Your task to perform on an android device: Set the phone to "Do not disturb". Image 0: 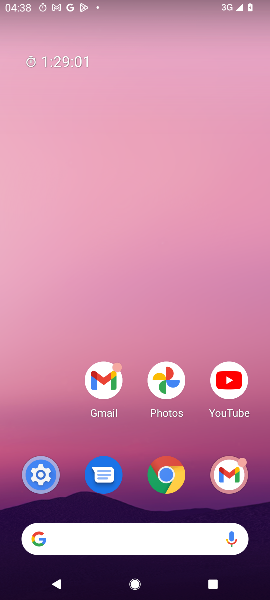
Step 0: press home button
Your task to perform on an android device: Set the phone to "Do not disturb". Image 1: 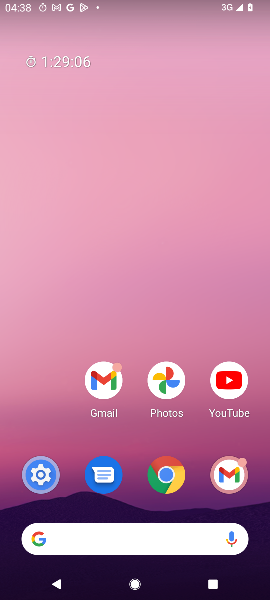
Step 1: drag from (57, 435) to (66, 182)
Your task to perform on an android device: Set the phone to "Do not disturb". Image 2: 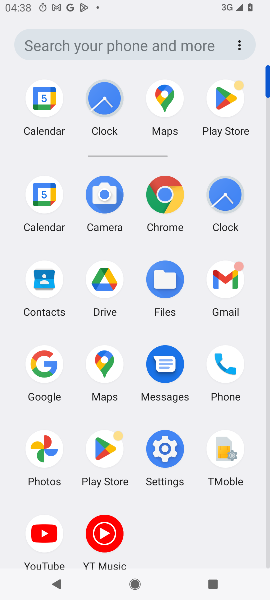
Step 2: click (167, 446)
Your task to perform on an android device: Set the phone to "Do not disturb". Image 3: 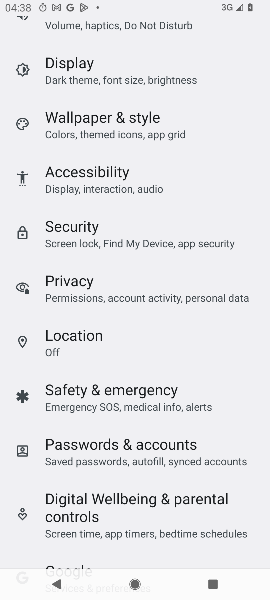
Step 3: drag from (218, 183) to (217, 290)
Your task to perform on an android device: Set the phone to "Do not disturb". Image 4: 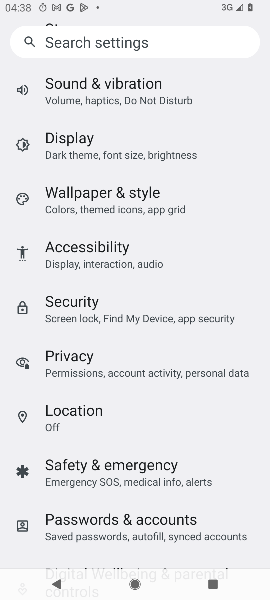
Step 4: drag from (231, 167) to (226, 271)
Your task to perform on an android device: Set the phone to "Do not disturb". Image 5: 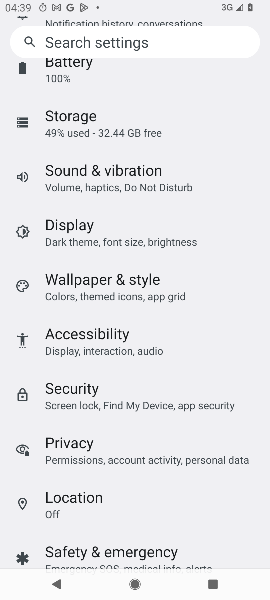
Step 5: drag from (234, 133) to (221, 378)
Your task to perform on an android device: Set the phone to "Do not disturb". Image 6: 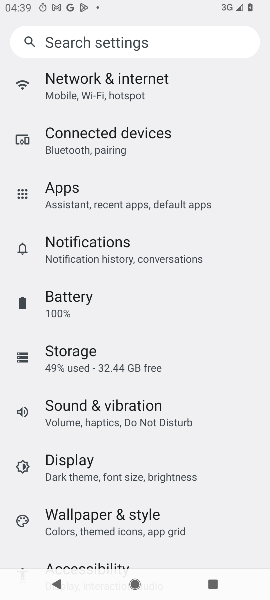
Step 6: drag from (236, 127) to (221, 304)
Your task to perform on an android device: Set the phone to "Do not disturb". Image 7: 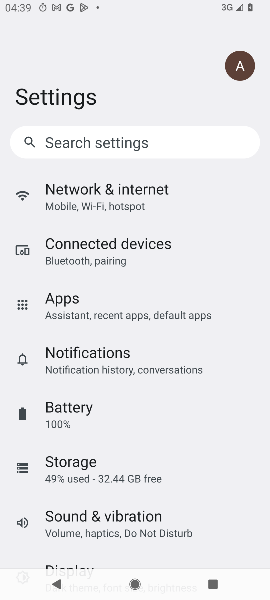
Step 7: click (149, 527)
Your task to perform on an android device: Set the phone to "Do not disturb". Image 8: 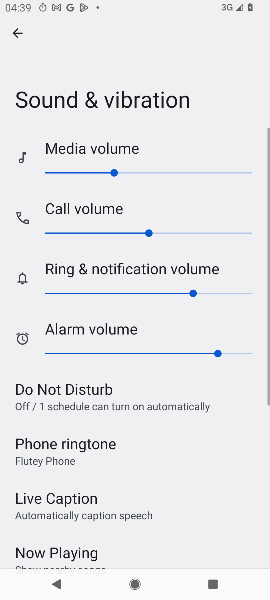
Step 8: drag from (195, 462) to (199, 378)
Your task to perform on an android device: Set the phone to "Do not disturb". Image 9: 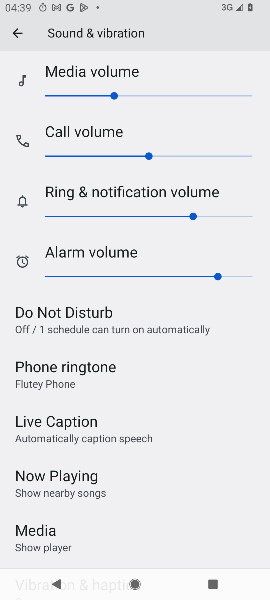
Step 9: click (118, 322)
Your task to perform on an android device: Set the phone to "Do not disturb". Image 10: 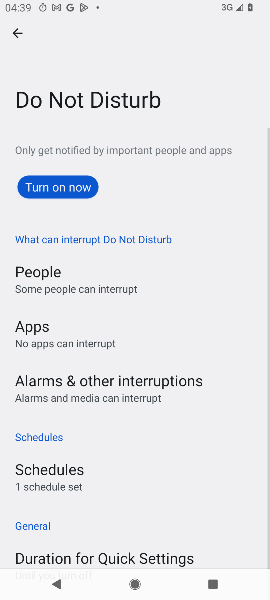
Step 10: click (64, 177)
Your task to perform on an android device: Set the phone to "Do not disturb". Image 11: 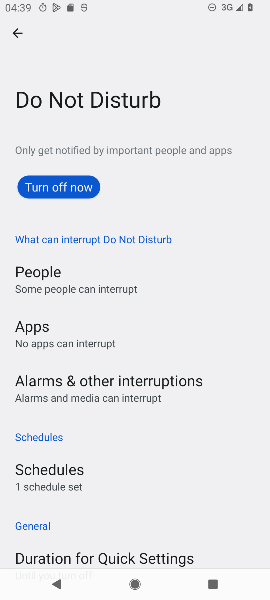
Step 11: task complete